Your task to perform on an android device: snooze an email in the gmail app Image 0: 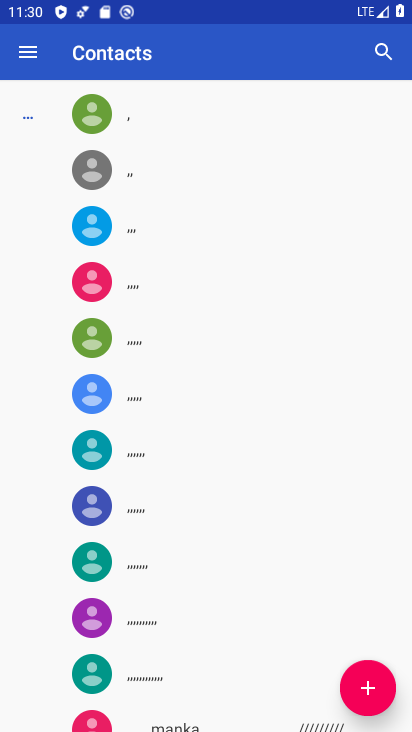
Step 0: press home button
Your task to perform on an android device: snooze an email in the gmail app Image 1: 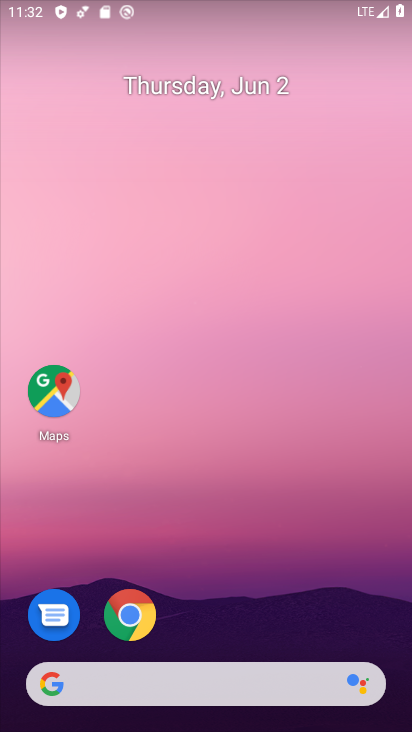
Step 1: drag from (303, 575) to (196, 55)
Your task to perform on an android device: snooze an email in the gmail app Image 2: 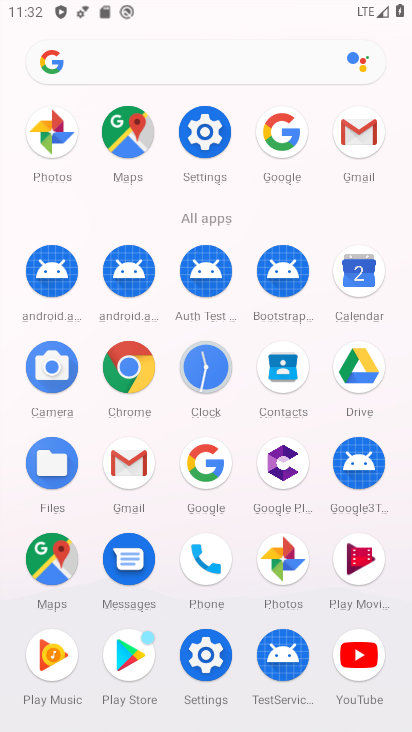
Step 2: click (363, 136)
Your task to perform on an android device: snooze an email in the gmail app Image 3: 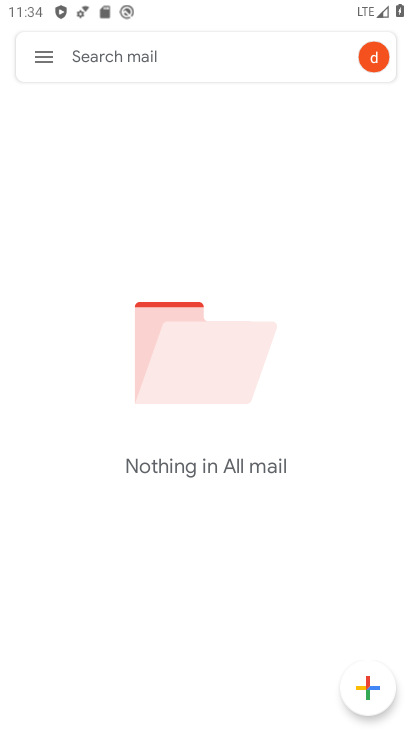
Step 3: click (37, 56)
Your task to perform on an android device: snooze an email in the gmail app Image 4: 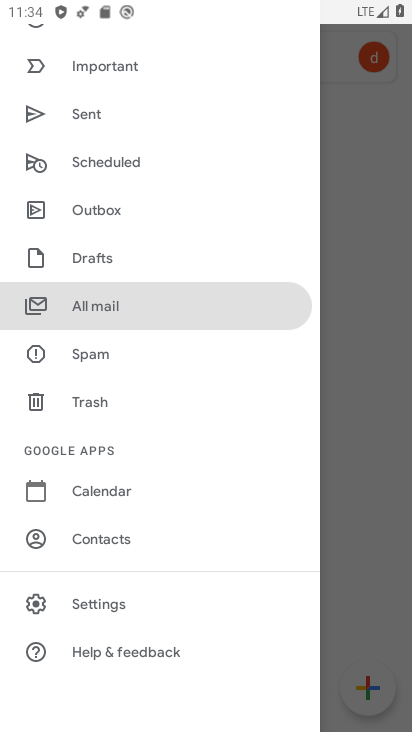
Step 4: task complete